Your task to perform on an android device: Search for the best selling vase on Crate & Barrel Image 0: 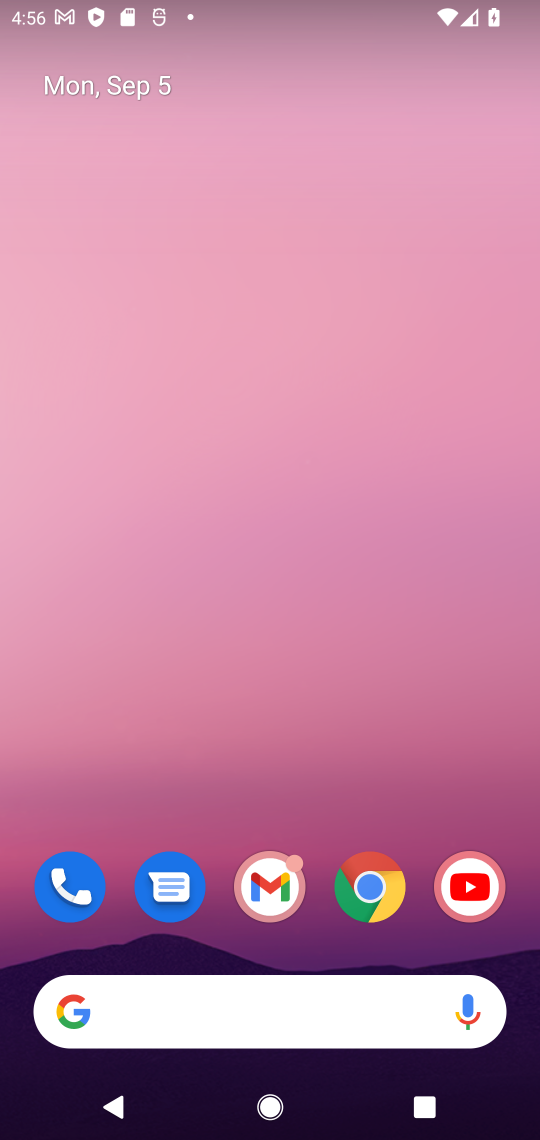
Step 0: drag from (516, 221) to (305, 639)
Your task to perform on an android device: Search for the best selling vase on Crate & Barrel Image 1: 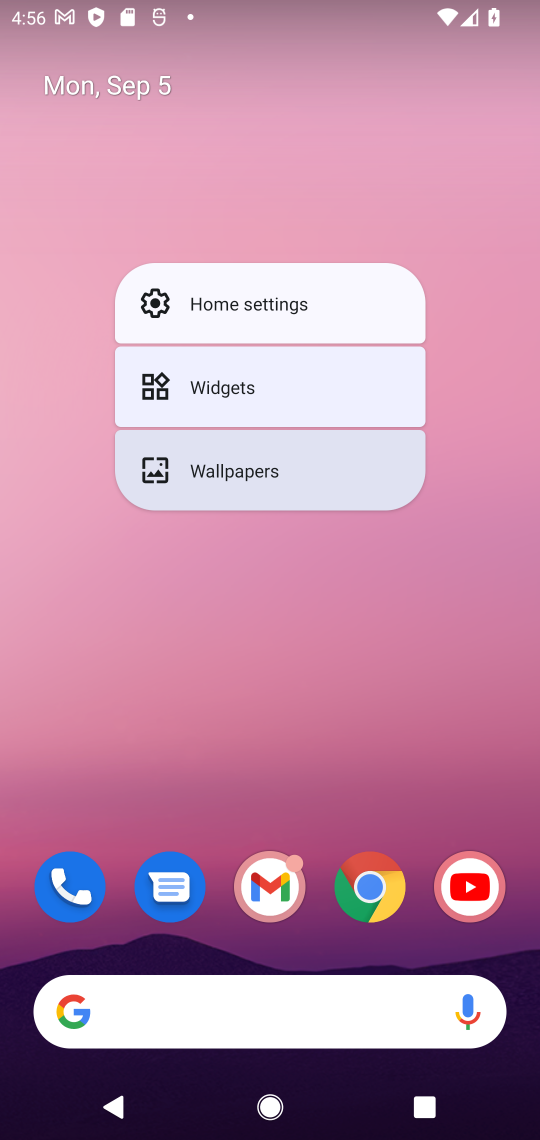
Step 1: click (278, 666)
Your task to perform on an android device: Search for the best selling vase on Crate & Barrel Image 2: 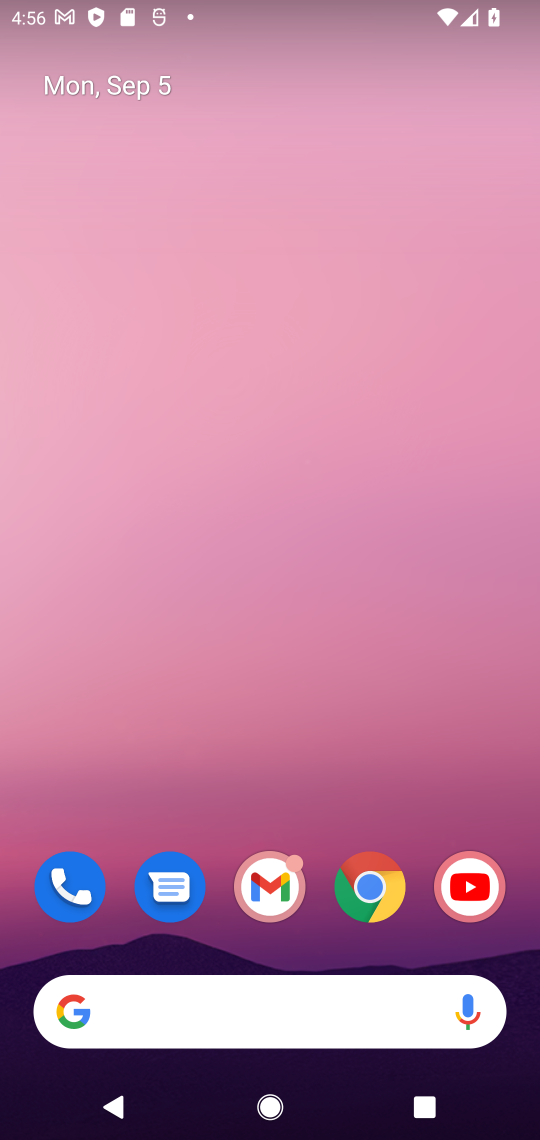
Step 2: drag from (259, 327) to (256, 202)
Your task to perform on an android device: Search for the best selling vase on Crate & Barrel Image 3: 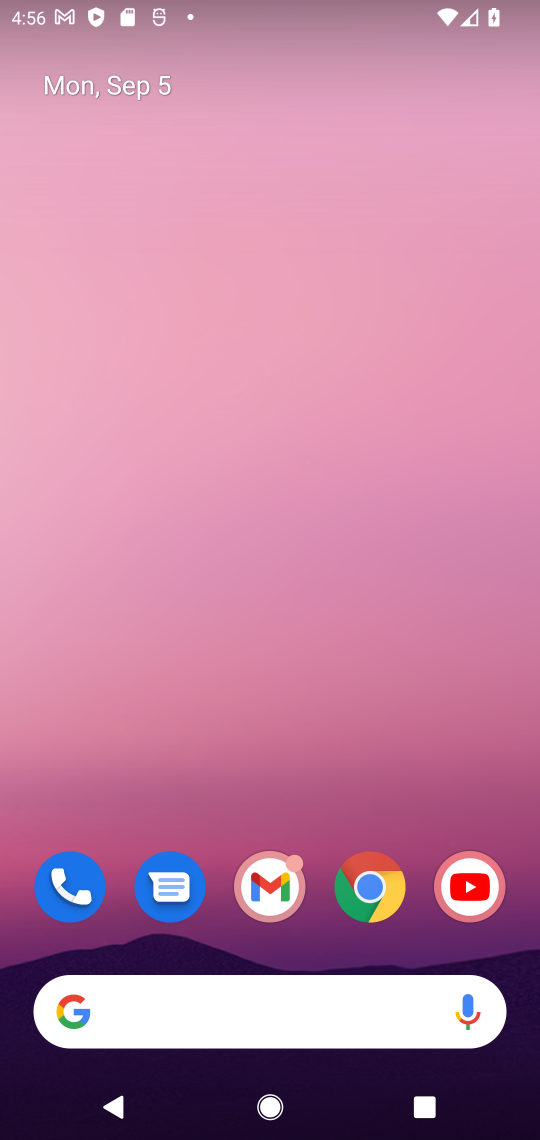
Step 3: drag from (398, 611) to (315, 0)
Your task to perform on an android device: Search for the best selling vase on Crate & Barrel Image 4: 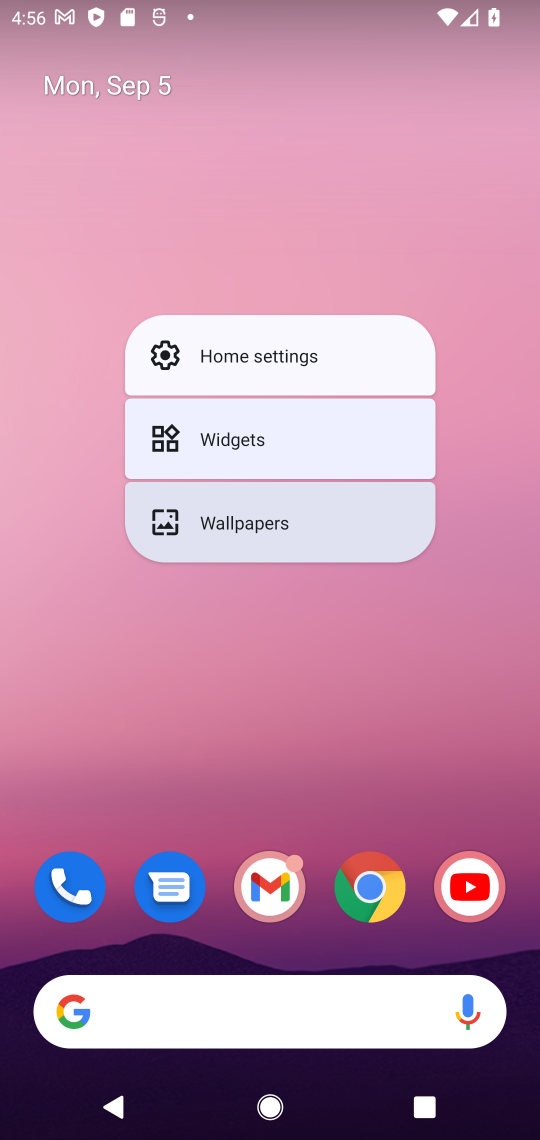
Step 4: click (509, 631)
Your task to perform on an android device: Search for the best selling vase on Crate & Barrel Image 5: 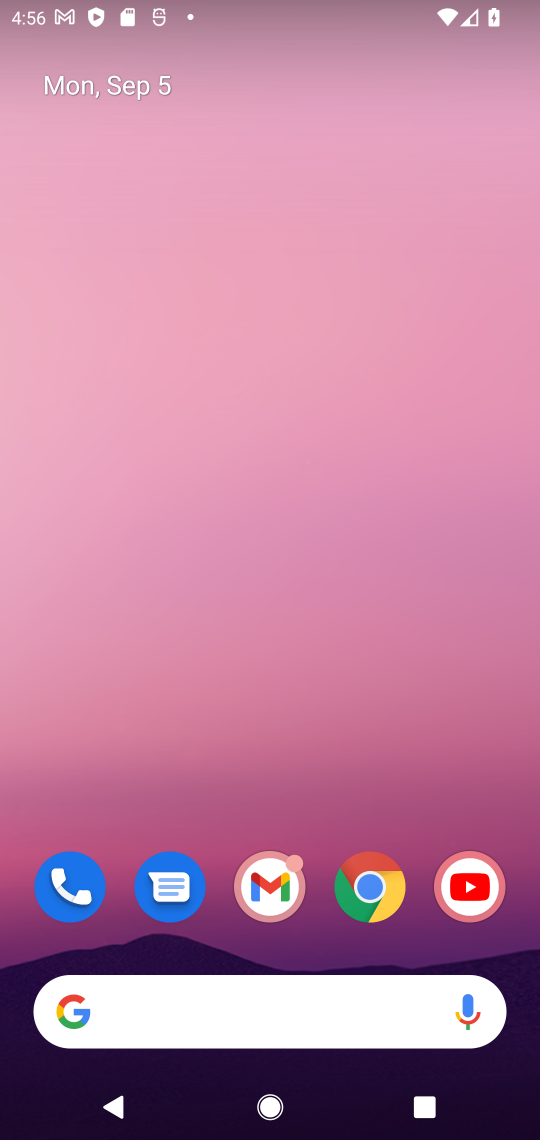
Step 5: drag from (311, 943) to (304, 31)
Your task to perform on an android device: Search for the best selling vase on Crate & Barrel Image 6: 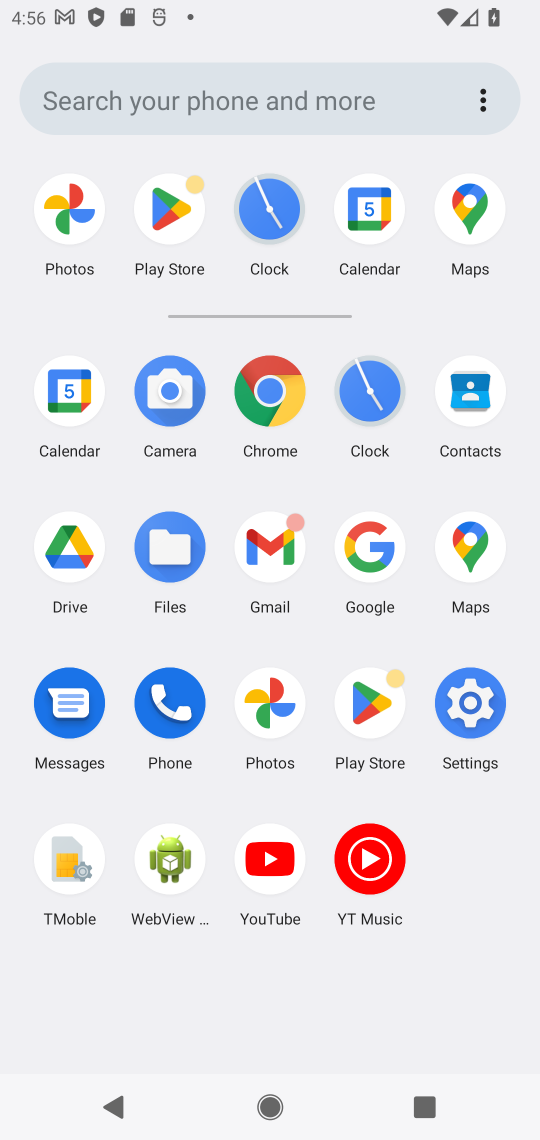
Step 6: click (277, 387)
Your task to perform on an android device: Search for the best selling vase on Crate & Barrel Image 7: 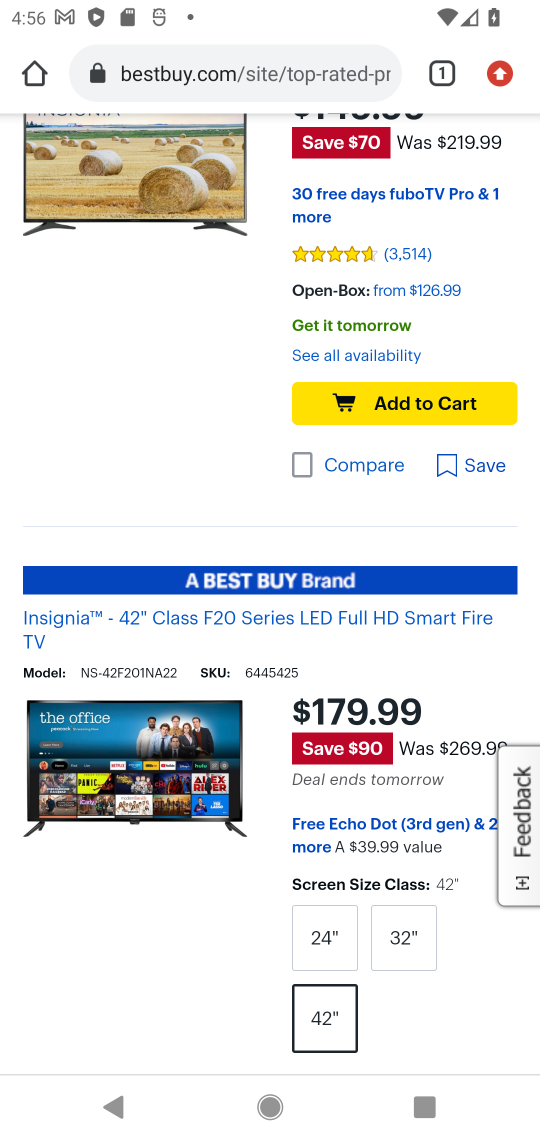
Step 7: click (347, 73)
Your task to perform on an android device: Search for the best selling vase on Crate & Barrel Image 8: 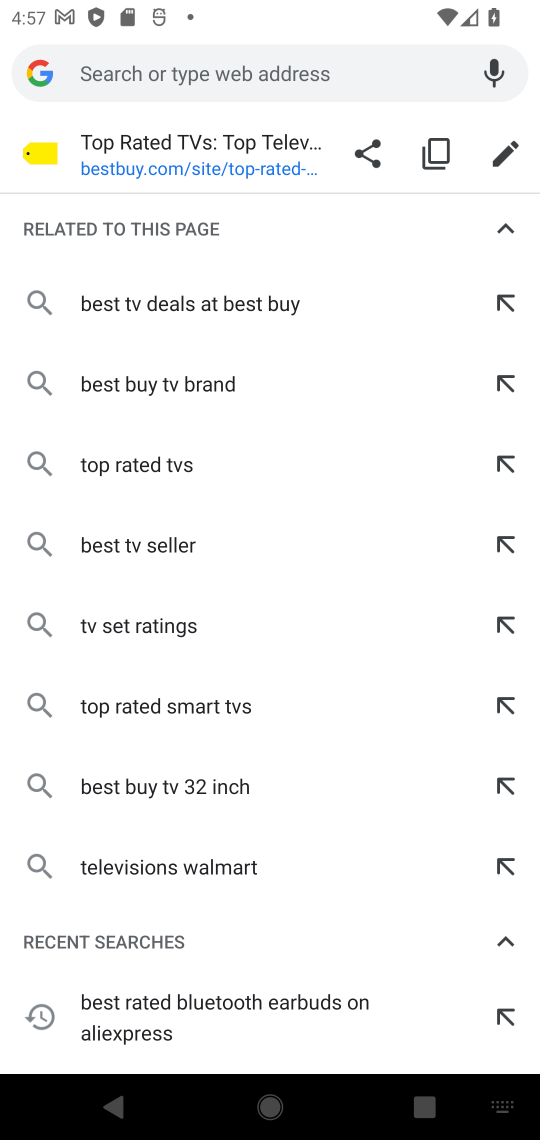
Step 8: type "best selling vase on Crate & Barrel"
Your task to perform on an android device: Search for the best selling vase on Crate & Barrel Image 9: 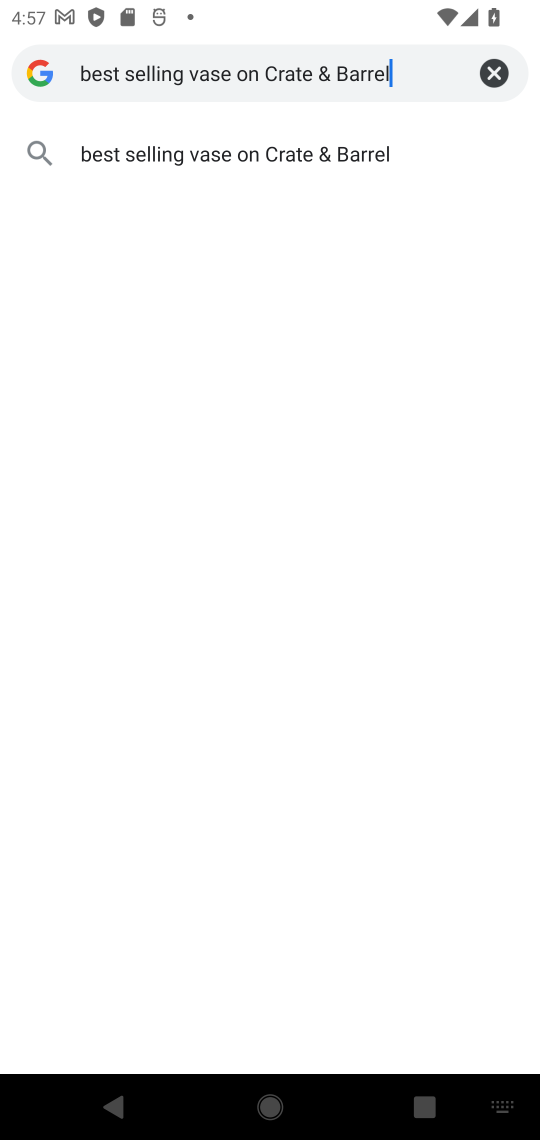
Step 9: press enter
Your task to perform on an android device: Search for the best selling vase on Crate & Barrel Image 10: 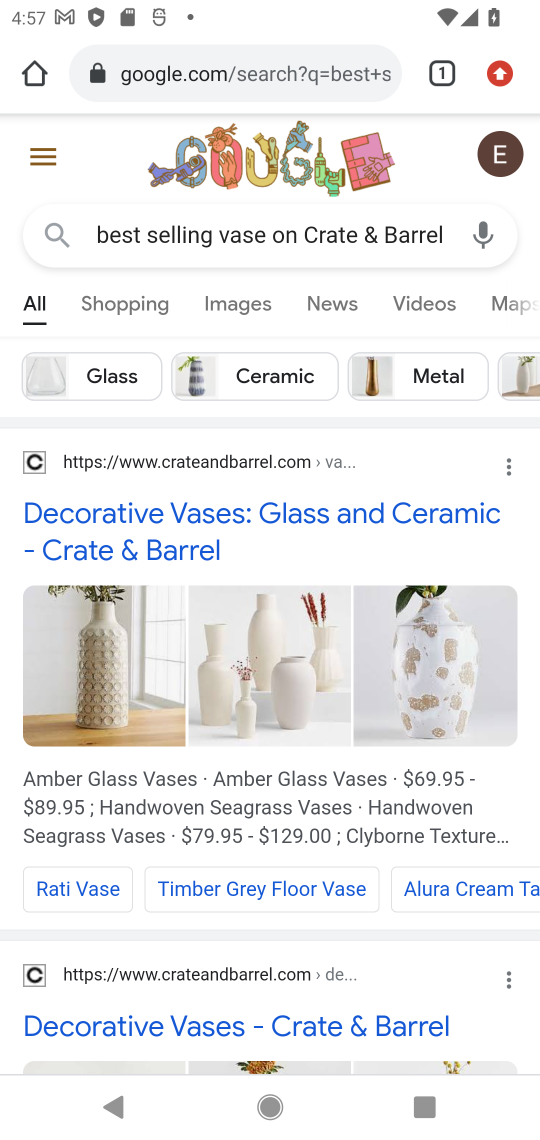
Step 10: click (232, 537)
Your task to perform on an android device: Search for the best selling vase on Crate & Barrel Image 11: 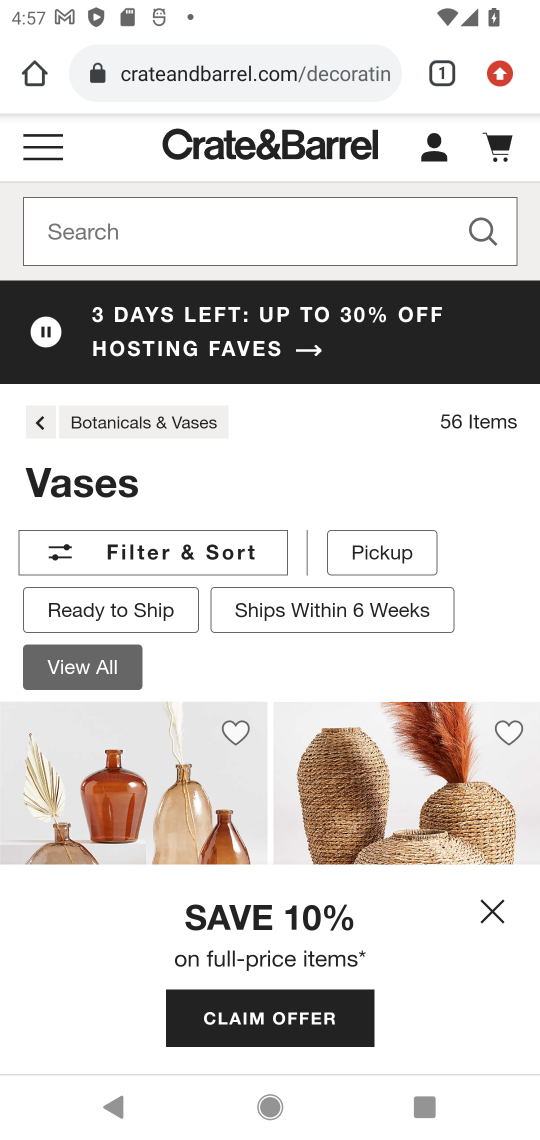
Step 11: task complete